Your task to perform on an android device: change alarm snooze length Image 0: 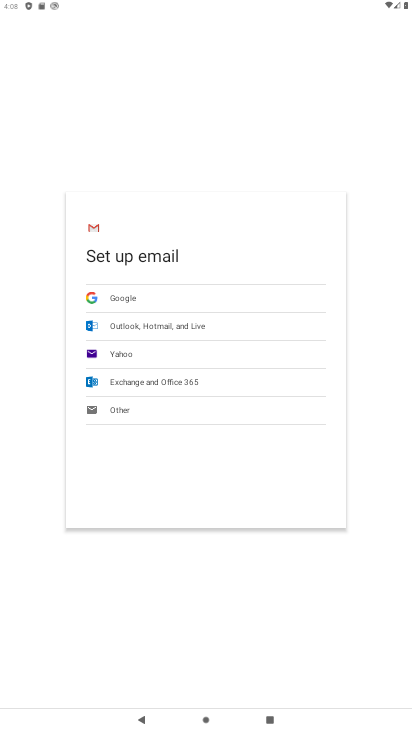
Step 0: press home button
Your task to perform on an android device: change alarm snooze length Image 1: 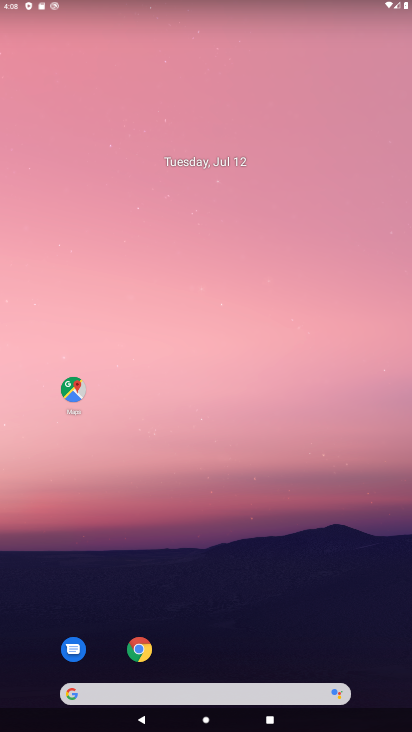
Step 1: drag from (198, 679) to (215, 139)
Your task to perform on an android device: change alarm snooze length Image 2: 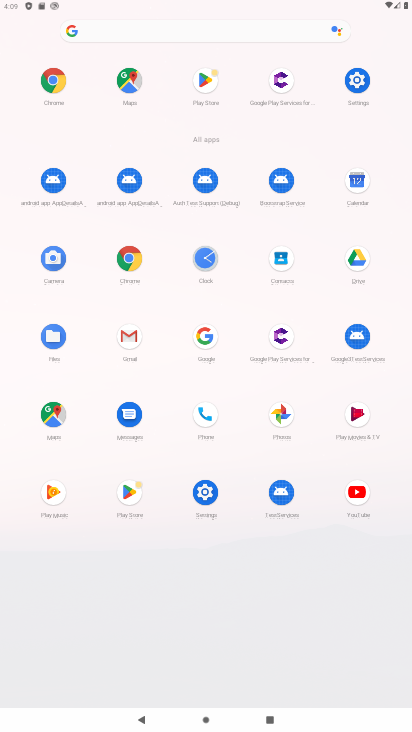
Step 2: click (207, 257)
Your task to perform on an android device: change alarm snooze length Image 3: 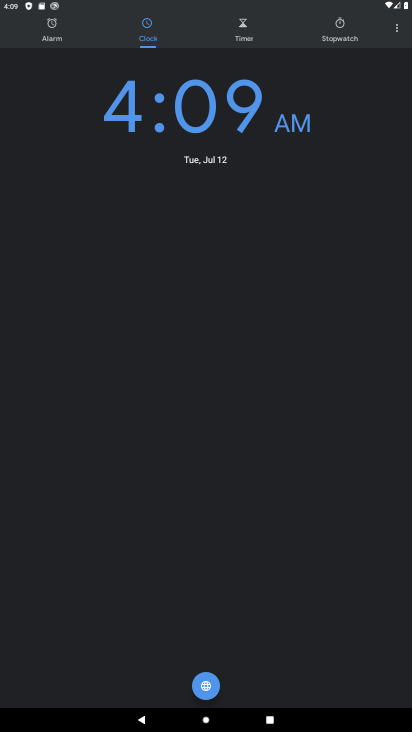
Step 3: click (398, 32)
Your task to perform on an android device: change alarm snooze length Image 4: 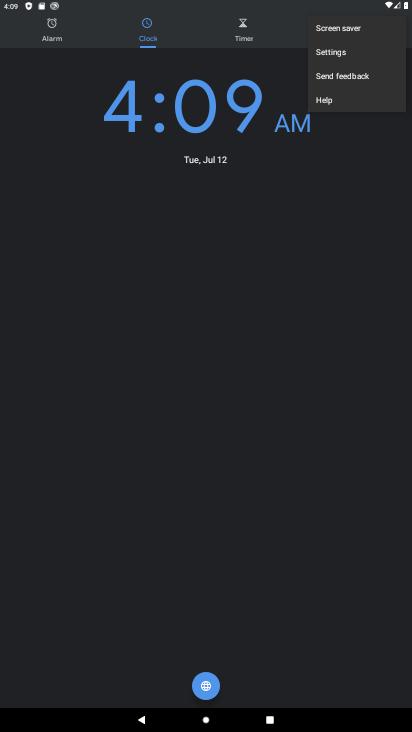
Step 4: click (337, 52)
Your task to perform on an android device: change alarm snooze length Image 5: 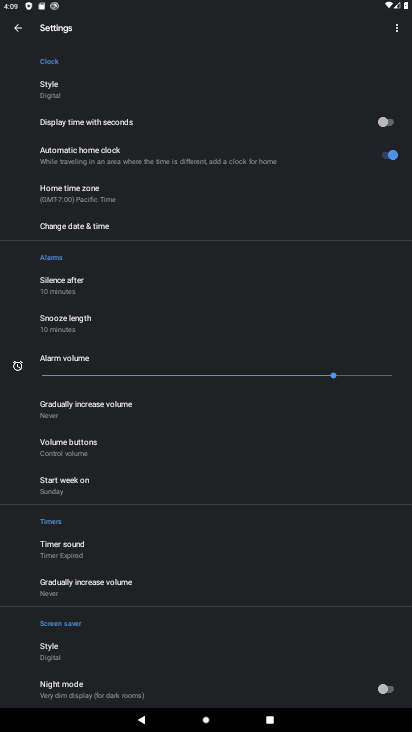
Step 5: click (68, 323)
Your task to perform on an android device: change alarm snooze length Image 6: 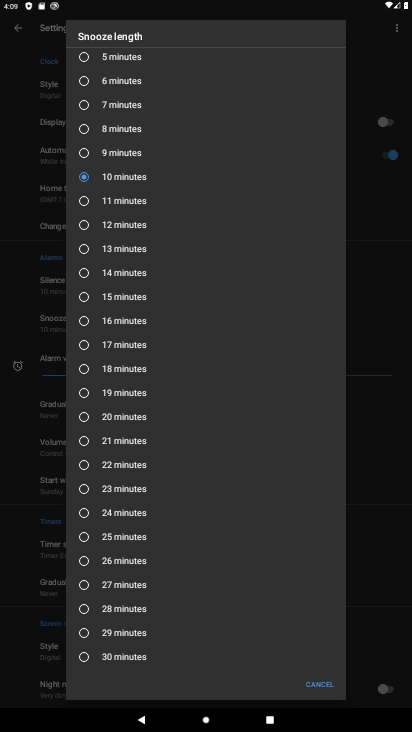
Step 6: click (85, 467)
Your task to perform on an android device: change alarm snooze length Image 7: 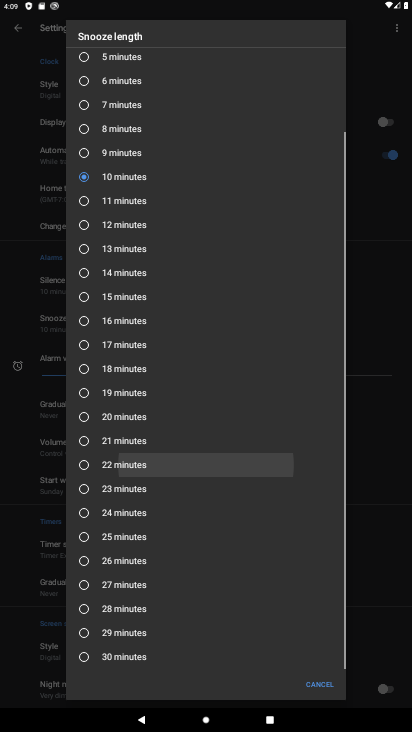
Step 7: click (85, 467)
Your task to perform on an android device: change alarm snooze length Image 8: 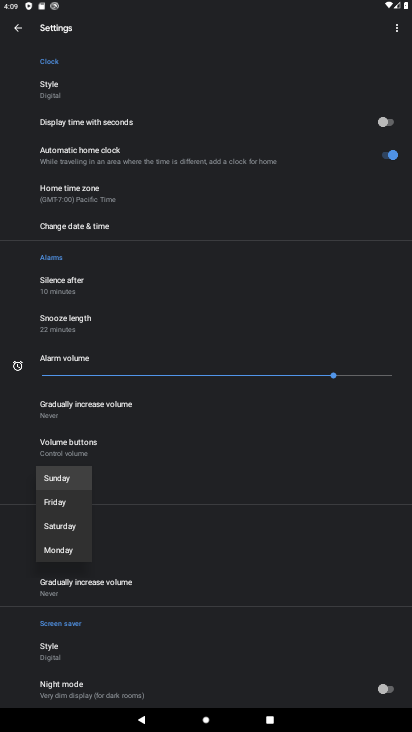
Step 8: task complete